Your task to perform on an android device: Show me the alarms in the clock app Image 0: 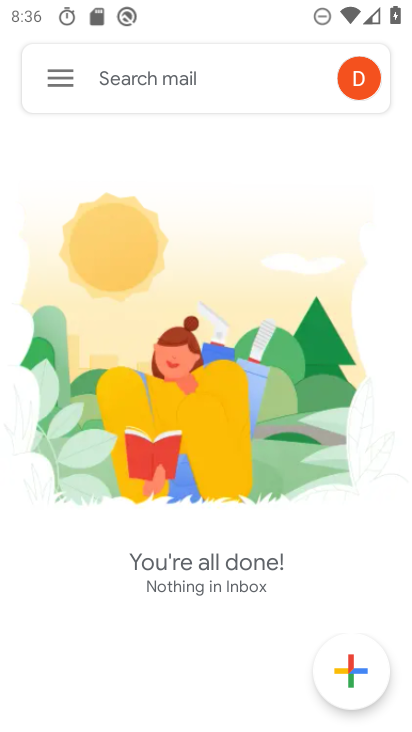
Step 0: press home button
Your task to perform on an android device: Show me the alarms in the clock app Image 1: 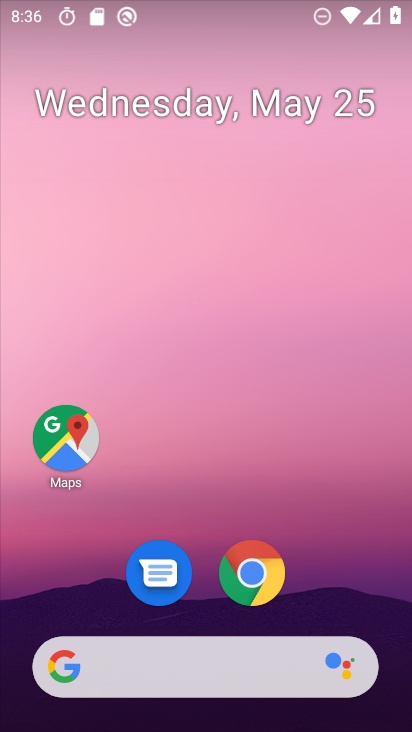
Step 1: click (343, 300)
Your task to perform on an android device: Show me the alarms in the clock app Image 2: 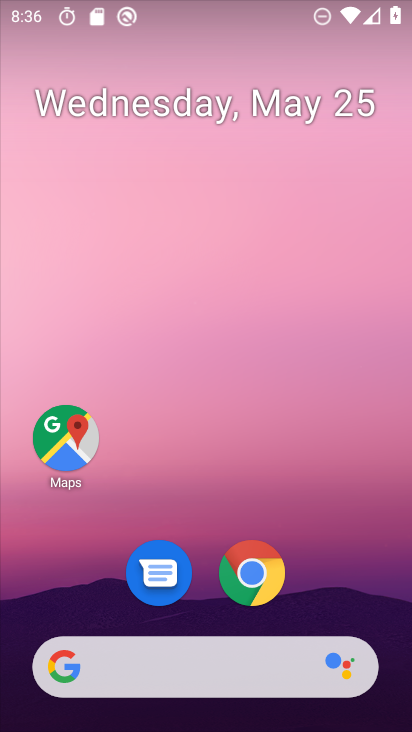
Step 2: drag from (387, 709) to (338, 227)
Your task to perform on an android device: Show me the alarms in the clock app Image 3: 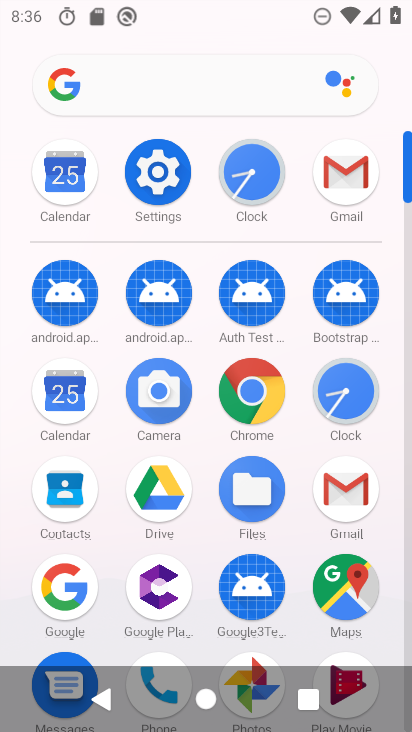
Step 3: click (346, 401)
Your task to perform on an android device: Show me the alarms in the clock app Image 4: 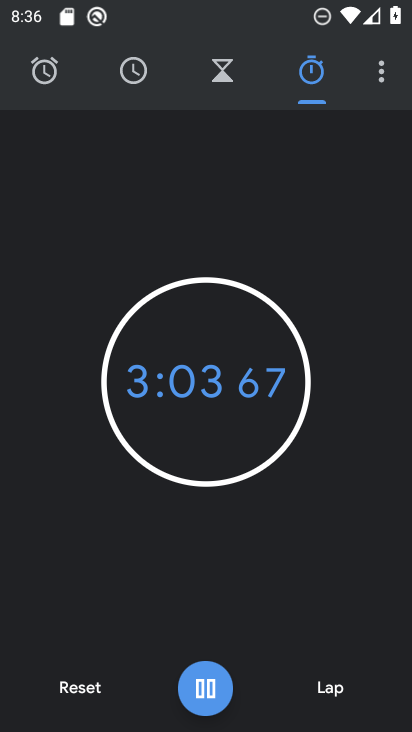
Step 4: click (46, 79)
Your task to perform on an android device: Show me the alarms in the clock app Image 5: 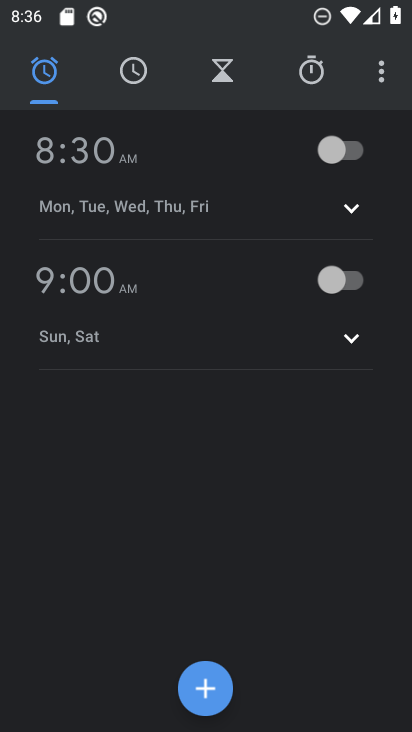
Step 5: task complete